Your task to perform on an android device: Go to Reddit.com Image 0: 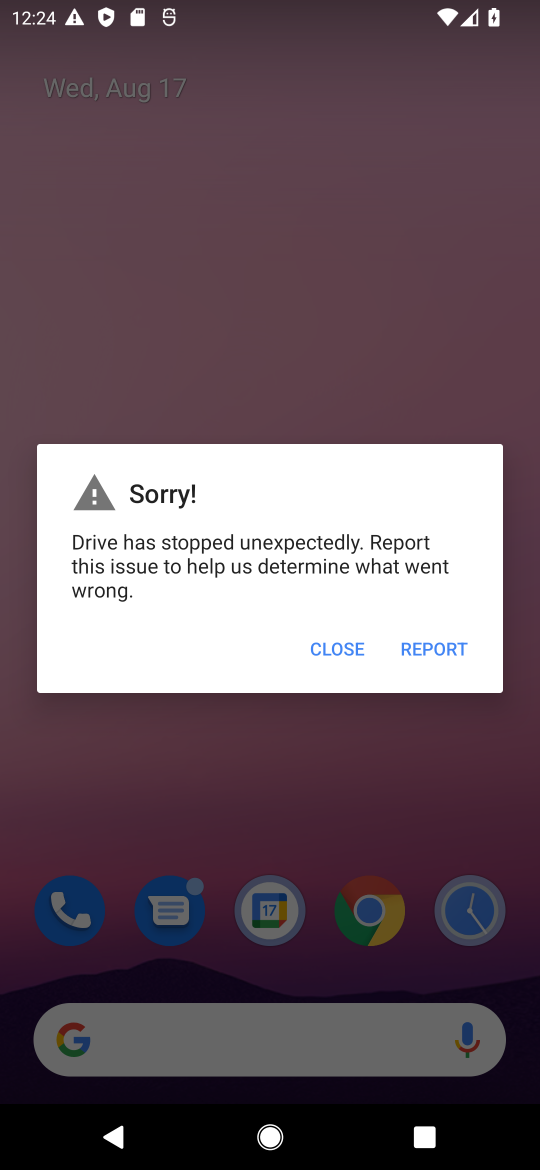
Step 0: click (331, 630)
Your task to perform on an android device: Go to Reddit.com Image 1: 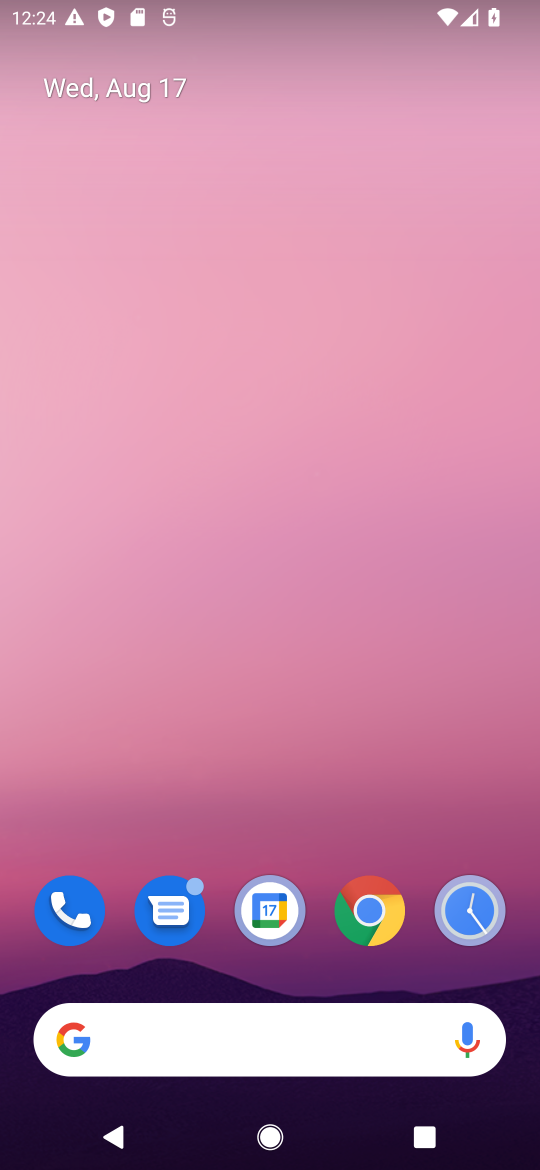
Step 1: click (349, 916)
Your task to perform on an android device: Go to Reddit.com Image 2: 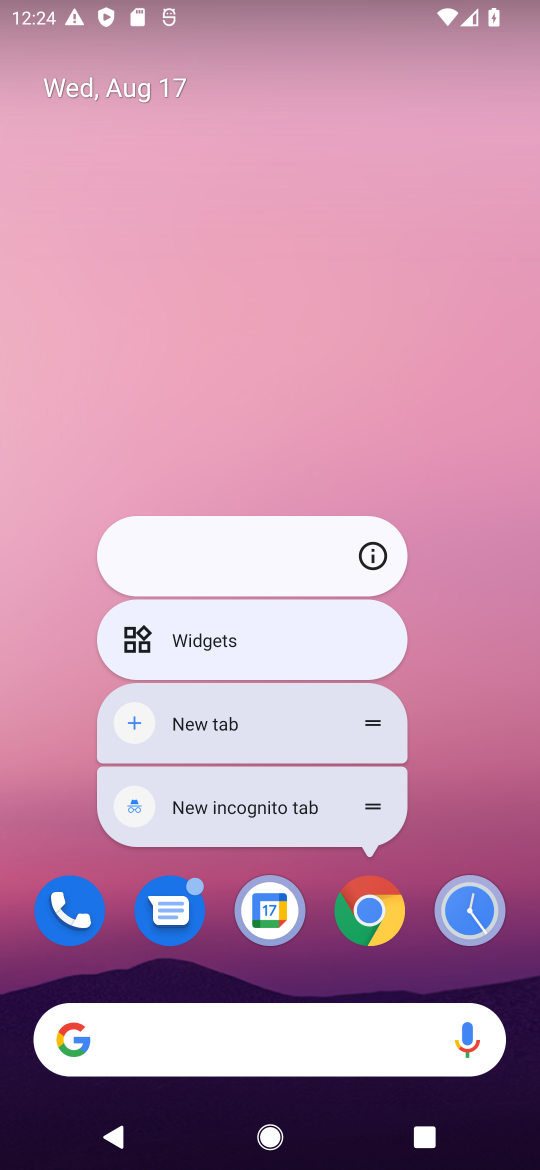
Step 2: click (365, 917)
Your task to perform on an android device: Go to Reddit.com Image 3: 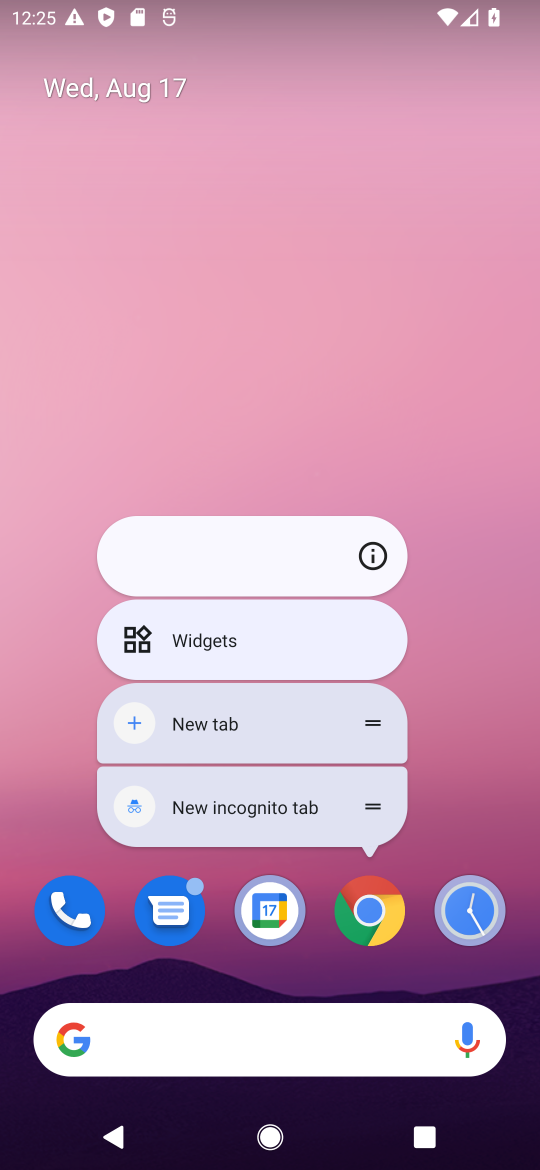
Step 3: click (365, 902)
Your task to perform on an android device: Go to Reddit.com Image 4: 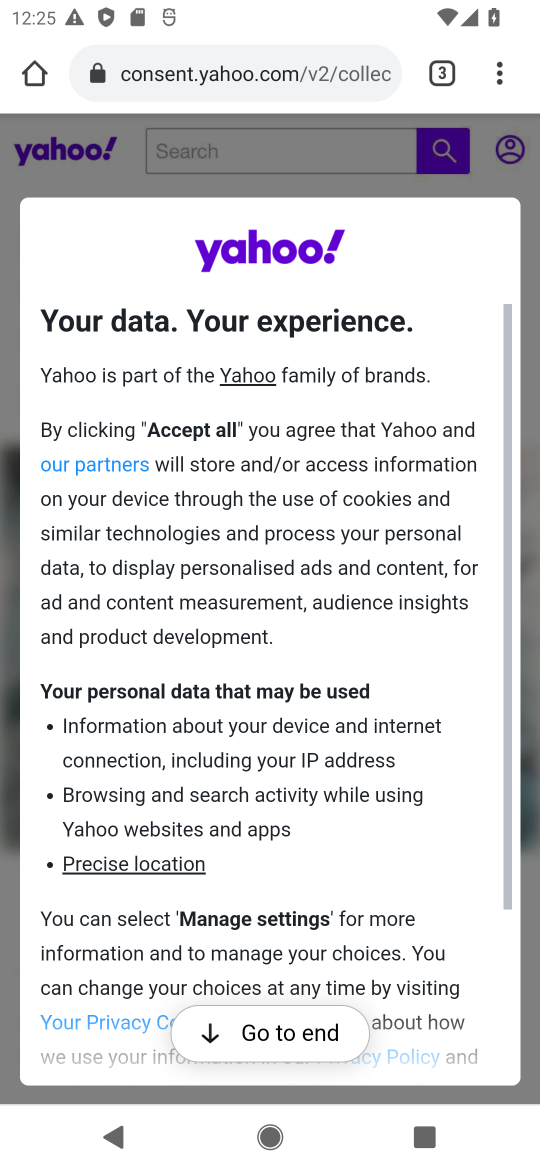
Step 4: click (362, 905)
Your task to perform on an android device: Go to Reddit.com Image 5: 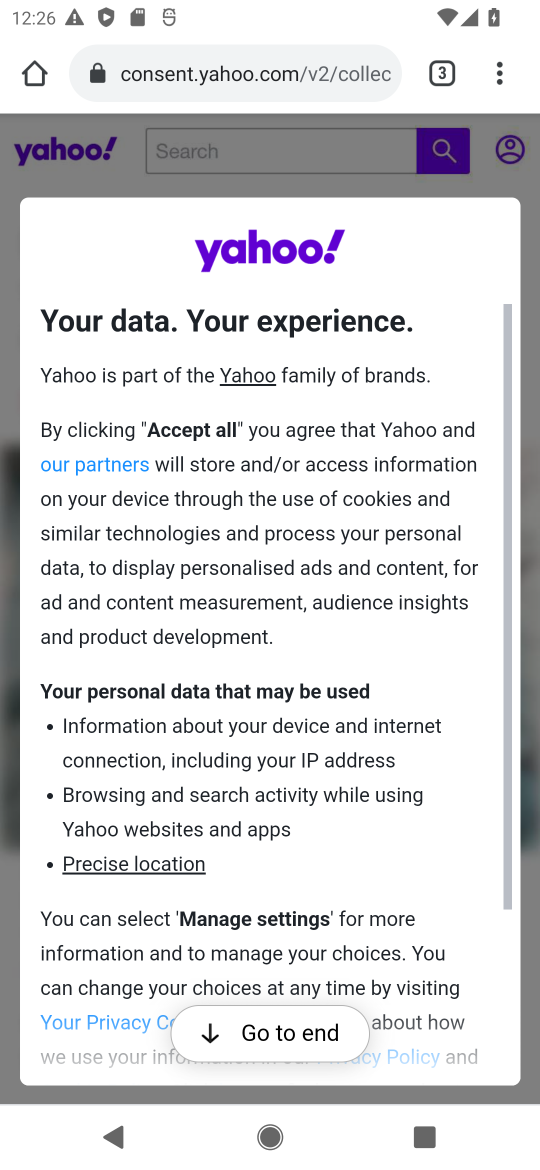
Step 5: click (362, 905)
Your task to perform on an android device: Go to Reddit.com Image 6: 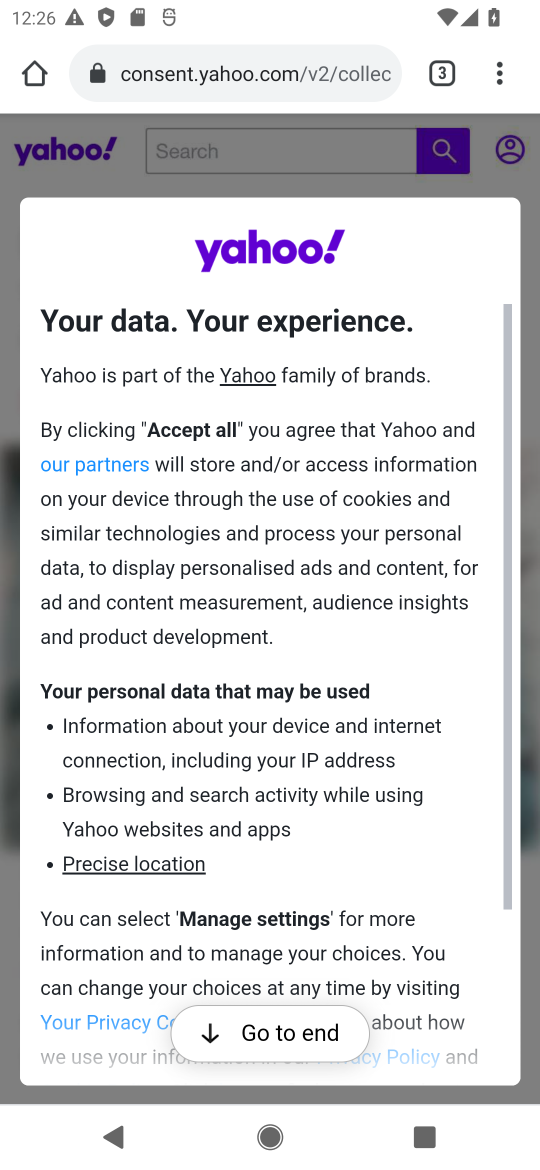
Step 6: click (450, 60)
Your task to perform on an android device: Go to Reddit.com Image 7: 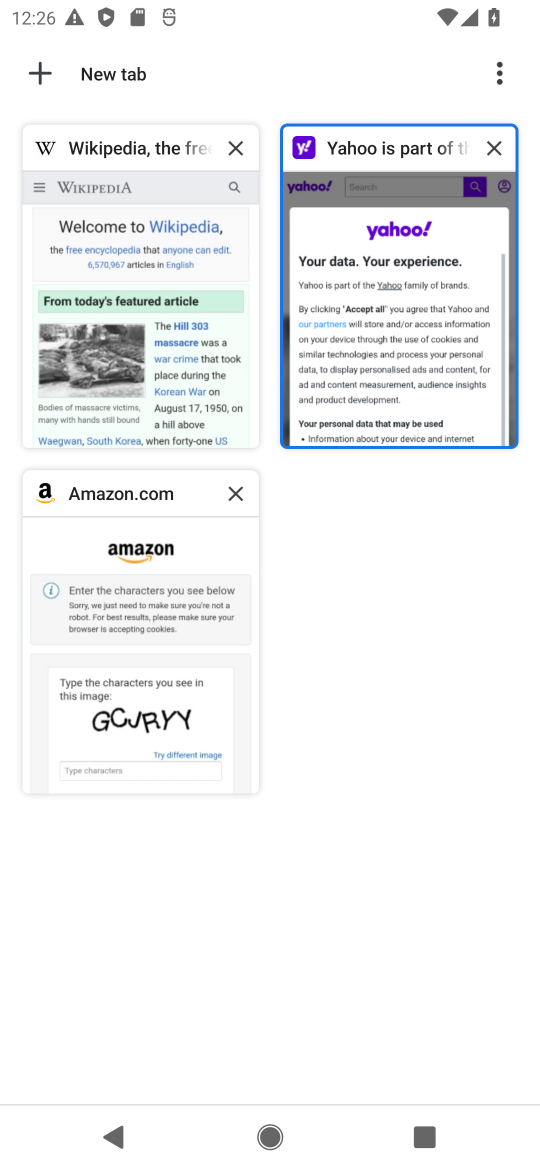
Step 7: click (20, 62)
Your task to perform on an android device: Go to Reddit.com Image 8: 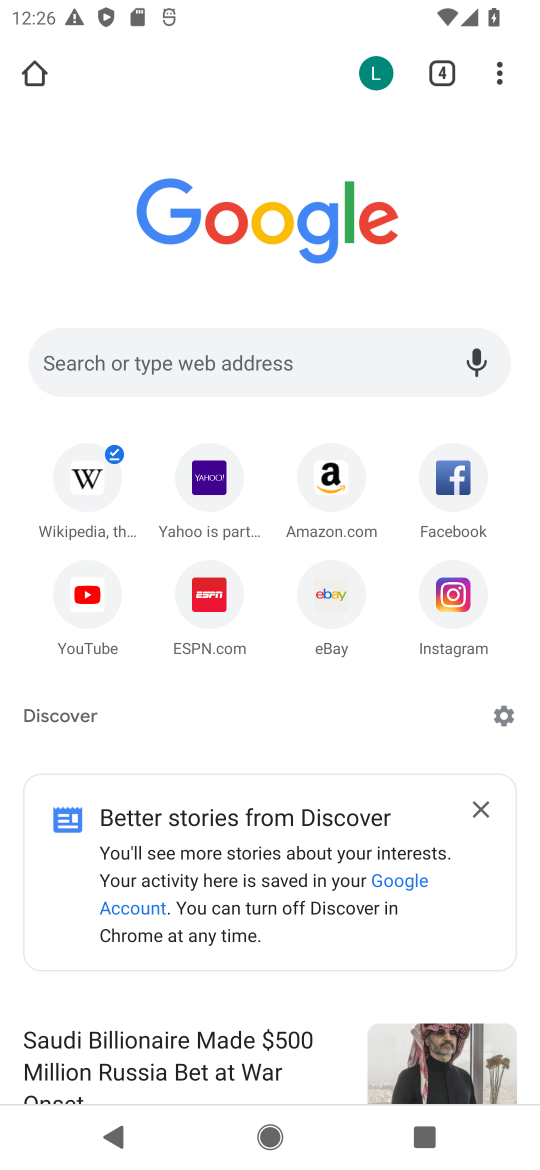
Step 8: click (173, 373)
Your task to perform on an android device: Go to Reddit.com Image 9: 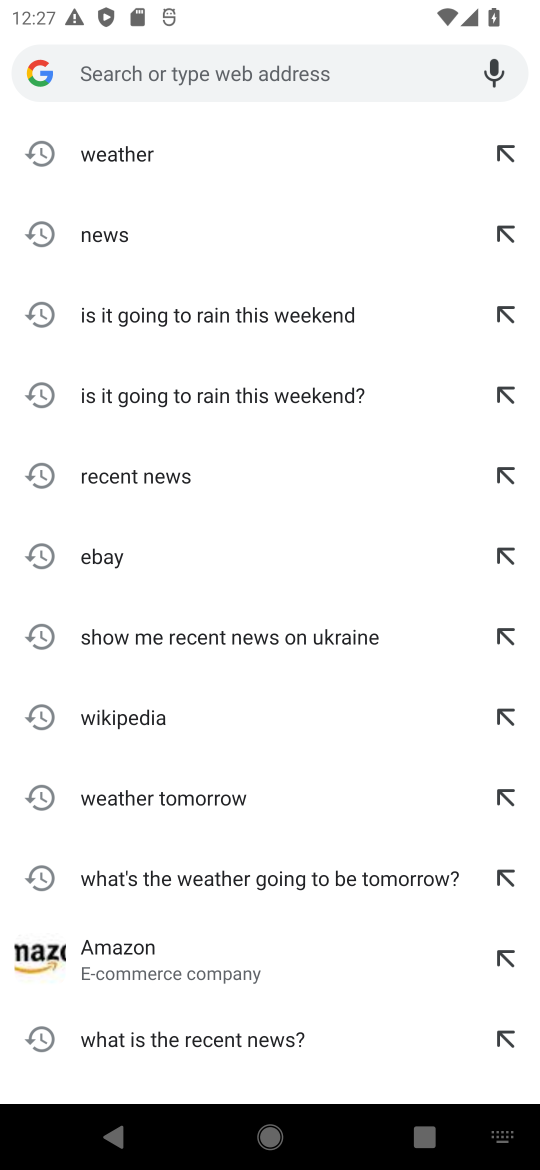
Step 9: type "reddit.com"
Your task to perform on an android device: Go to Reddit.com Image 10: 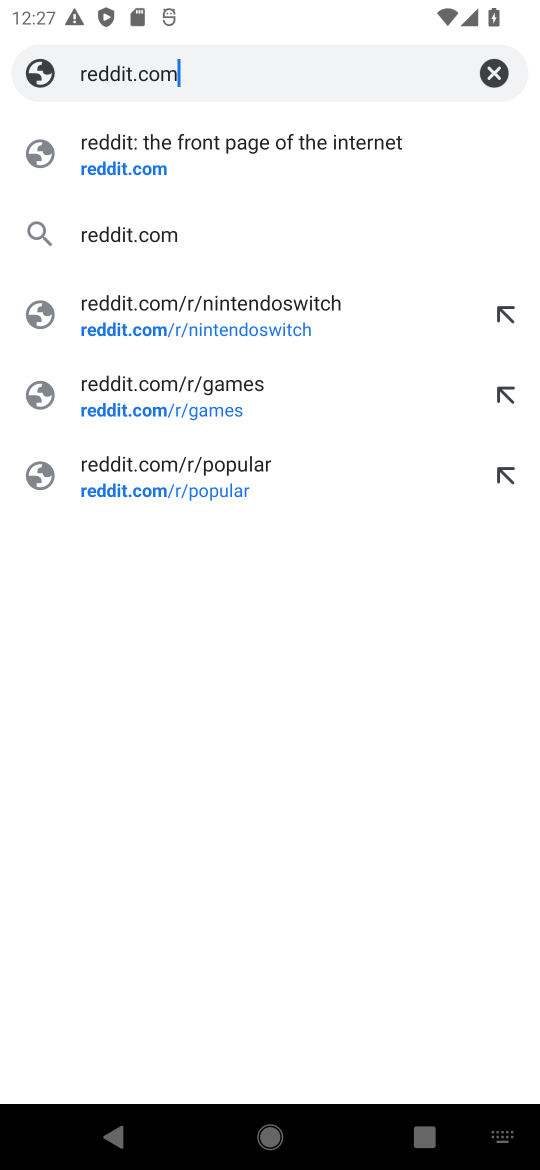
Step 10: click (176, 163)
Your task to perform on an android device: Go to Reddit.com Image 11: 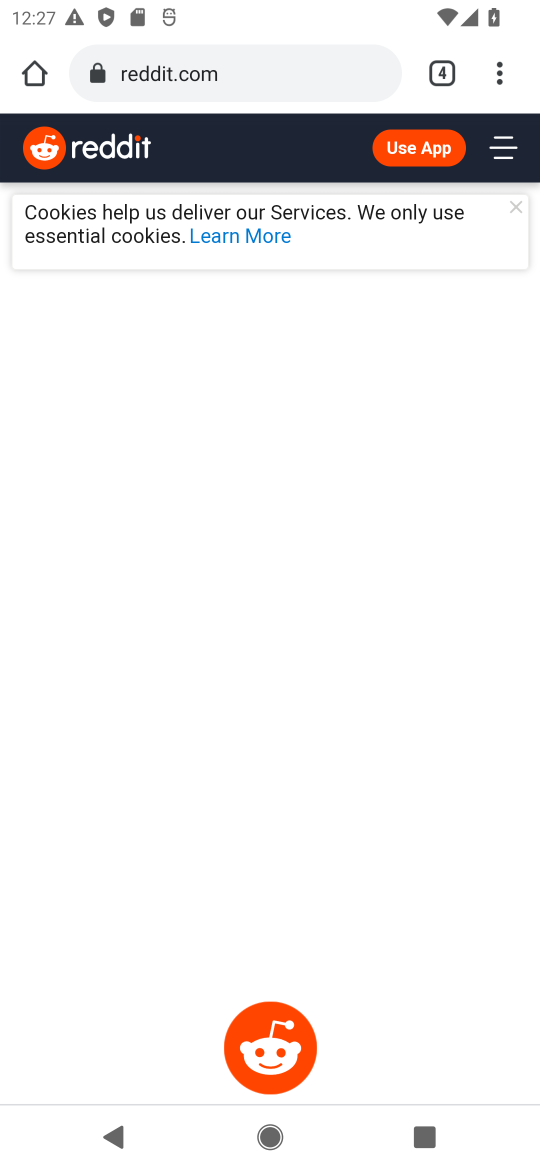
Step 11: task complete